Your task to perform on an android device: Open calendar and show me the third week of next month Image 0: 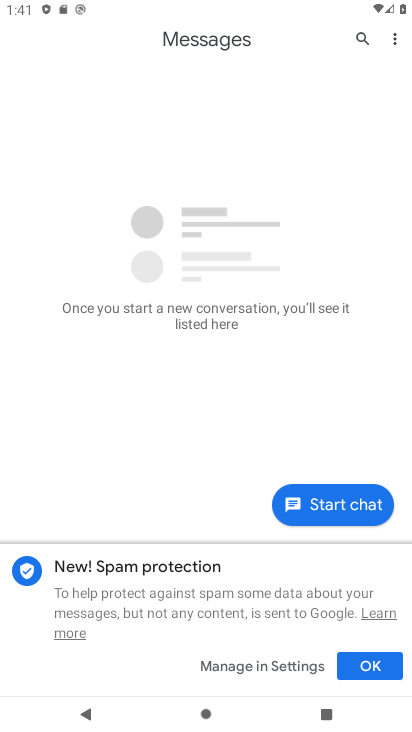
Step 0: press home button
Your task to perform on an android device: Open calendar and show me the third week of next month Image 1: 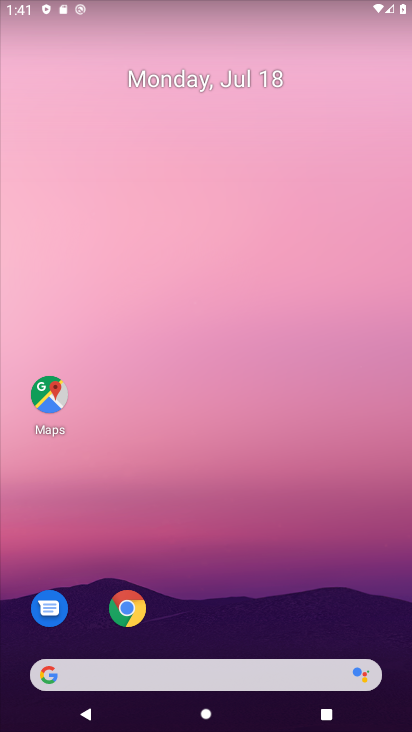
Step 1: drag from (232, 671) to (202, 53)
Your task to perform on an android device: Open calendar and show me the third week of next month Image 2: 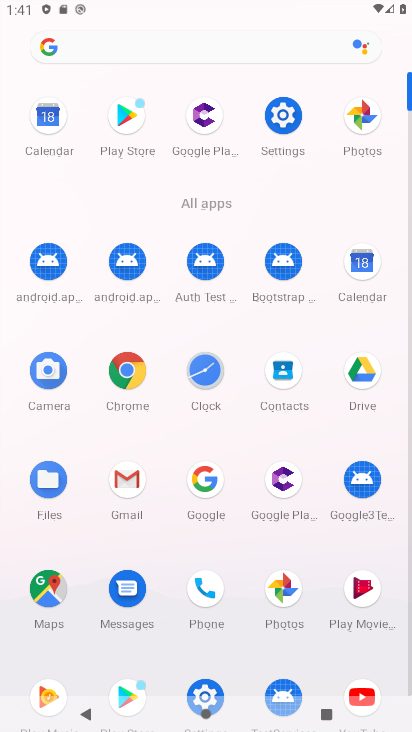
Step 2: click (359, 288)
Your task to perform on an android device: Open calendar and show me the third week of next month Image 3: 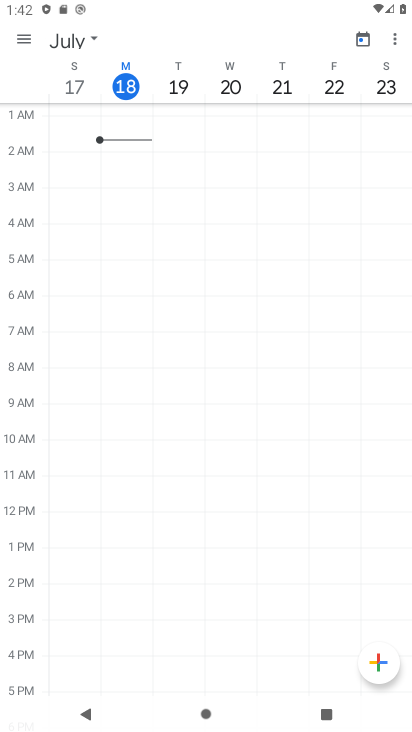
Step 3: click (22, 33)
Your task to perform on an android device: Open calendar and show me the third week of next month Image 4: 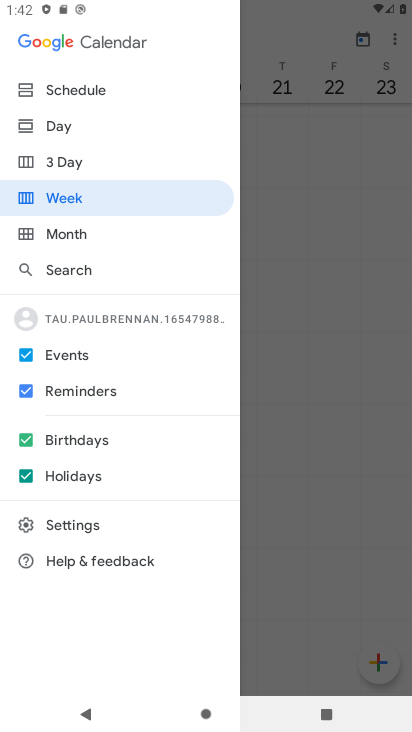
Step 4: click (80, 236)
Your task to perform on an android device: Open calendar and show me the third week of next month Image 5: 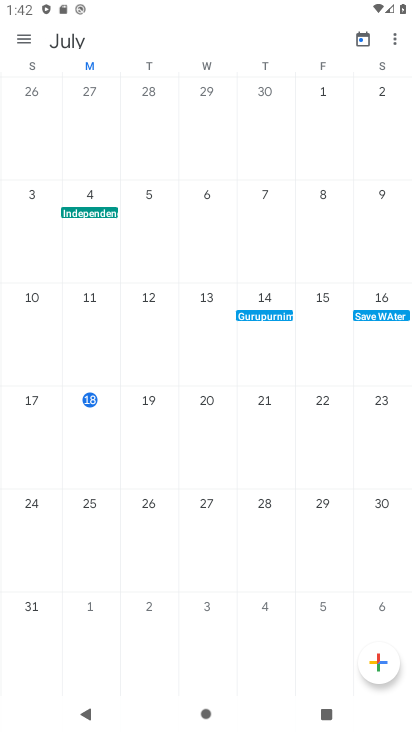
Step 5: task complete